Your task to perform on an android device: Go to Wikipedia Image 0: 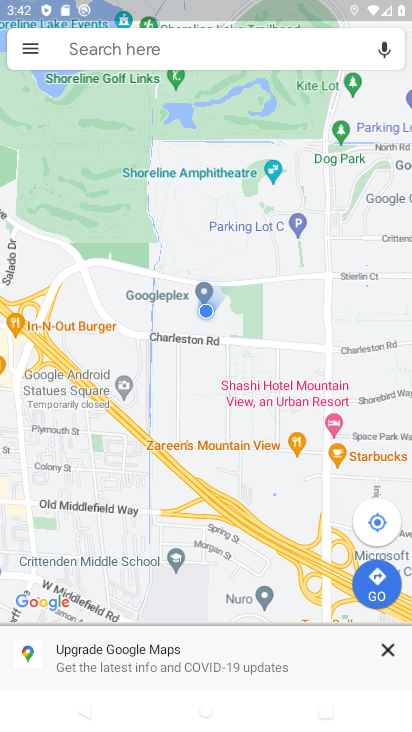
Step 0: press home button
Your task to perform on an android device: Go to Wikipedia Image 1: 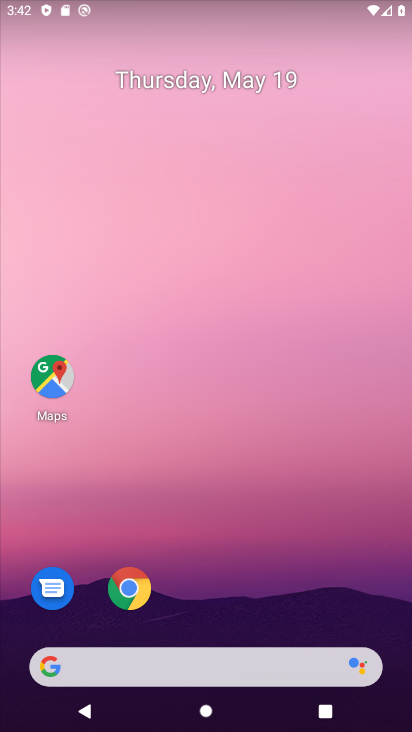
Step 1: click (131, 581)
Your task to perform on an android device: Go to Wikipedia Image 2: 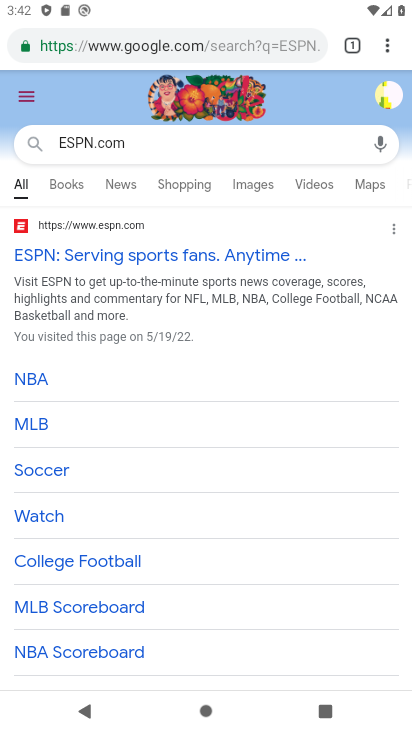
Step 2: click (168, 42)
Your task to perform on an android device: Go to Wikipedia Image 3: 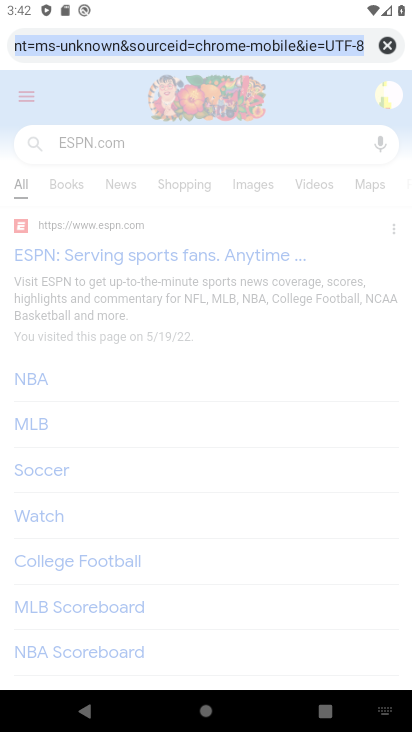
Step 3: type "wikipedia.org"
Your task to perform on an android device: Go to Wikipedia Image 4: 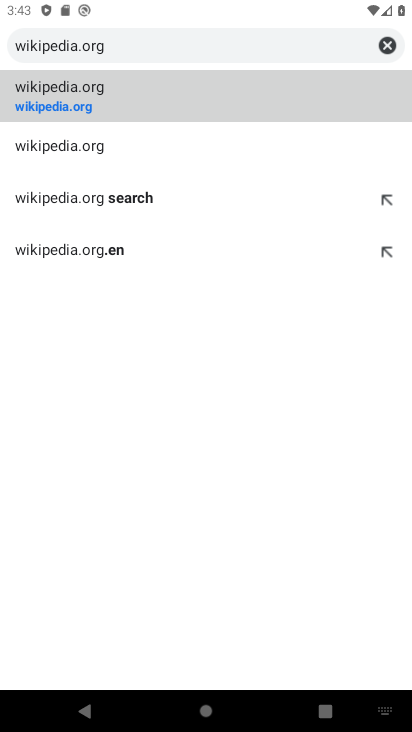
Step 4: click (111, 99)
Your task to perform on an android device: Go to Wikipedia Image 5: 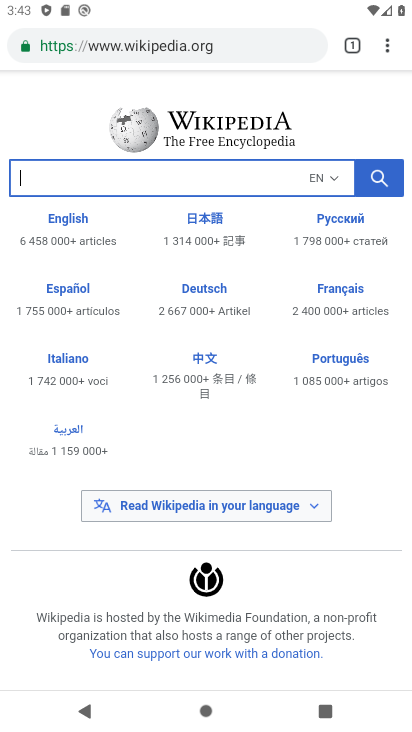
Step 5: task complete